Your task to perform on an android device: Go to Google maps Image 0: 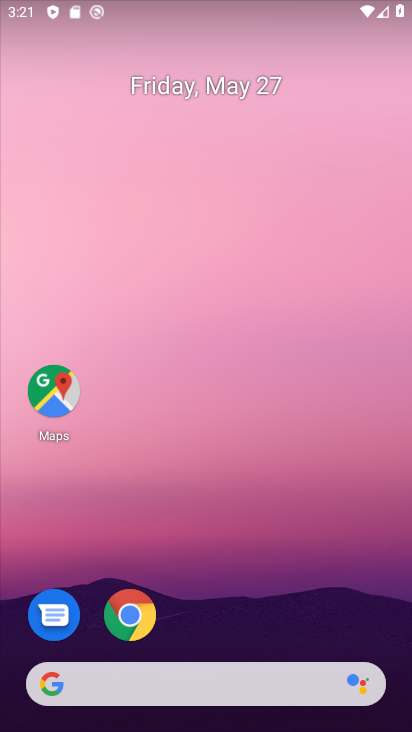
Step 0: click (44, 412)
Your task to perform on an android device: Go to Google maps Image 1: 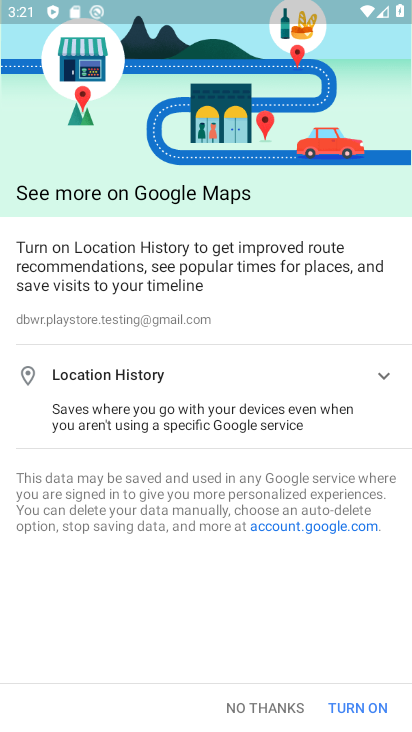
Step 1: click (273, 713)
Your task to perform on an android device: Go to Google maps Image 2: 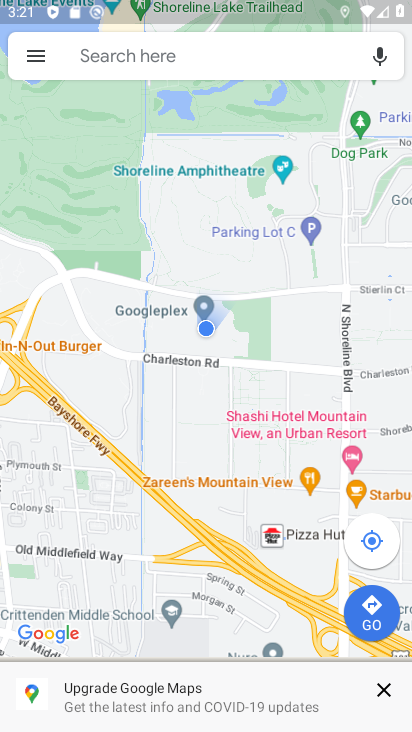
Step 2: task complete